Your task to perform on an android device: toggle location history Image 0: 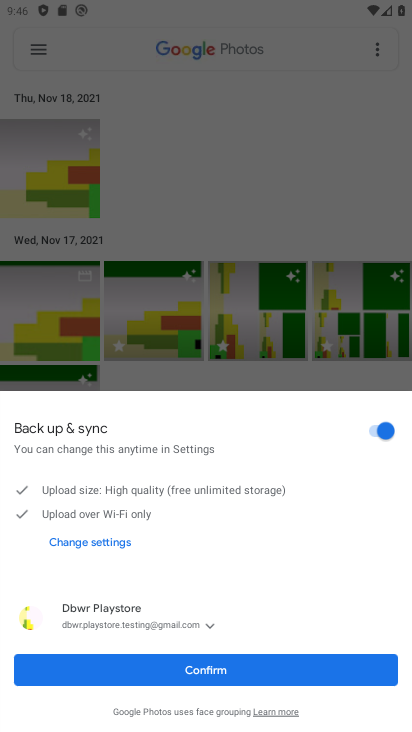
Step 0: press home button
Your task to perform on an android device: toggle location history Image 1: 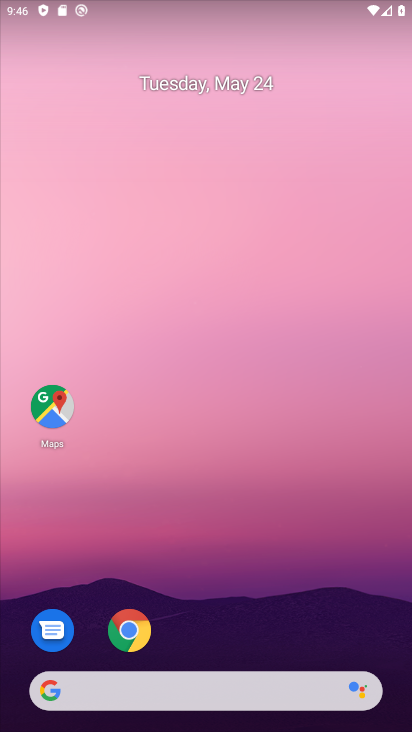
Step 1: drag from (219, 651) to (265, 120)
Your task to perform on an android device: toggle location history Image 2: 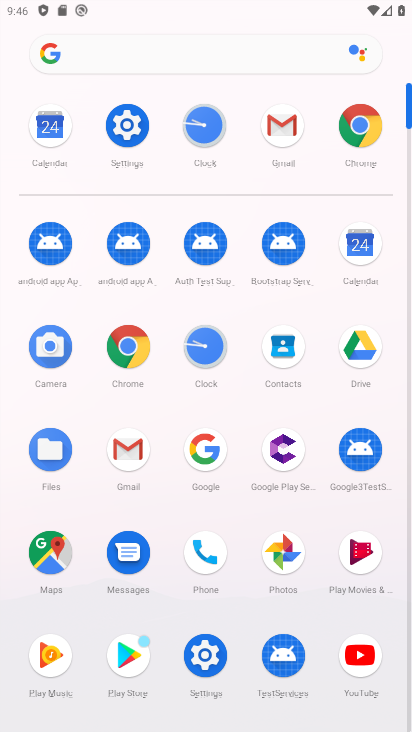
Step 2: click (125, 118)
Your task to perform on an android device: toggle location history Image 3: 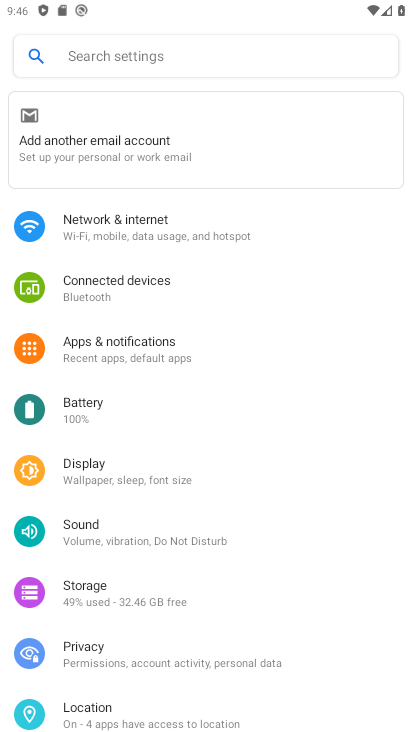
Step 3: click (137, 706)
Your task to perform on an android device: toggle location history Image 4: 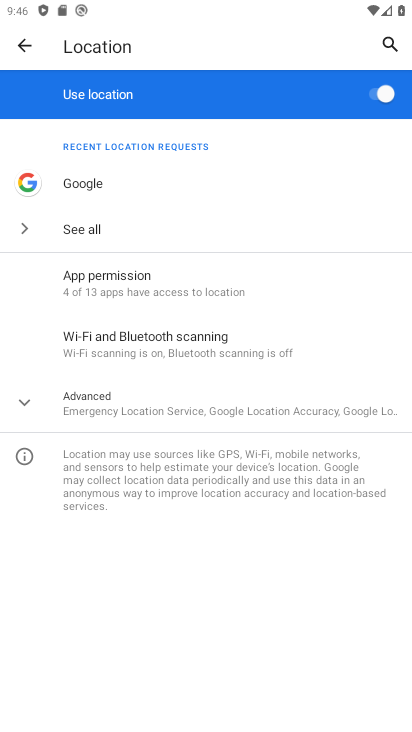
Step 4: click (24, 396)
Your task to perform on an android device: toggle location history Image 5: 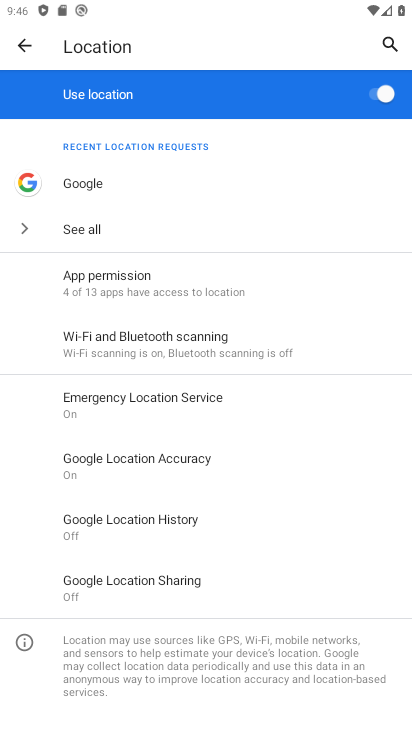
Step 5: click (115, 527)
Your task to perform on an android device: toggle location history Image 6: 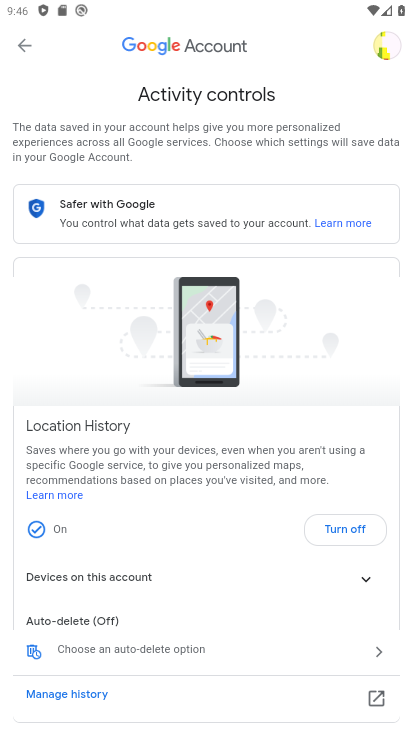
Step 6: task complete